Your task to perform on an android device: find which apps use the phone's location Image 0: 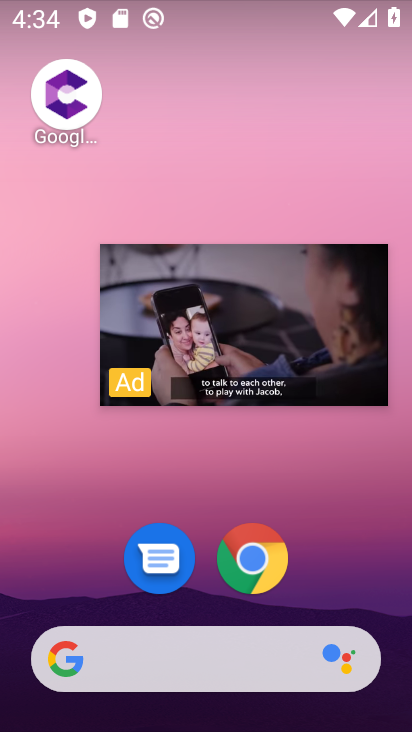
Step 0: click (354, 289)
Your task to perform on an android device: find which apps use the phone's location Image 1: 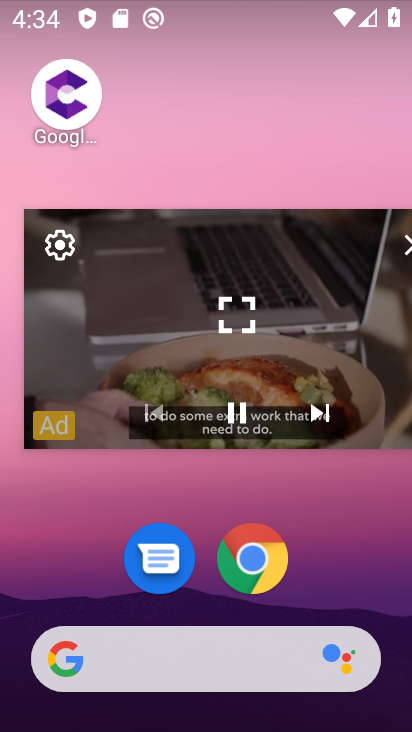
Step 1: click (409, 250)
Your task to perform on an android device: find which apps use the phone's location Image 2: 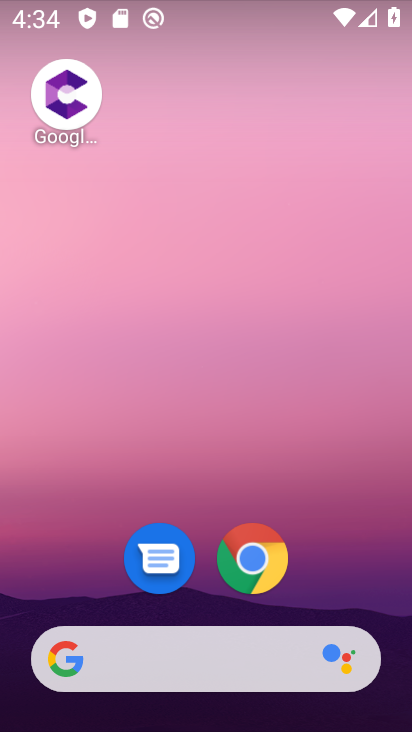
Step 2: drag from (359, 584) to (233, 40)
Your task to perform on an android device: find which apps use the phone's location Image 3: 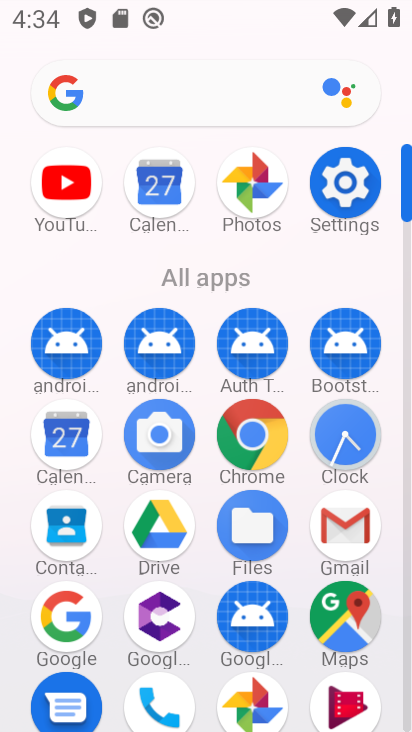
Step 3: click (337, 186)
Your task to perform on an android device: find which apps use the phone's location Image 4: 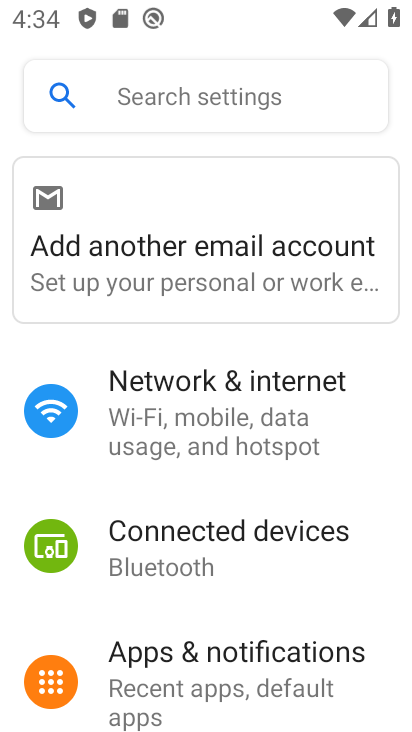
Step 4: drag from (323, 623) to (262, 147)
Your task to perform on an android device: find which apps use the phone's location Image 5: 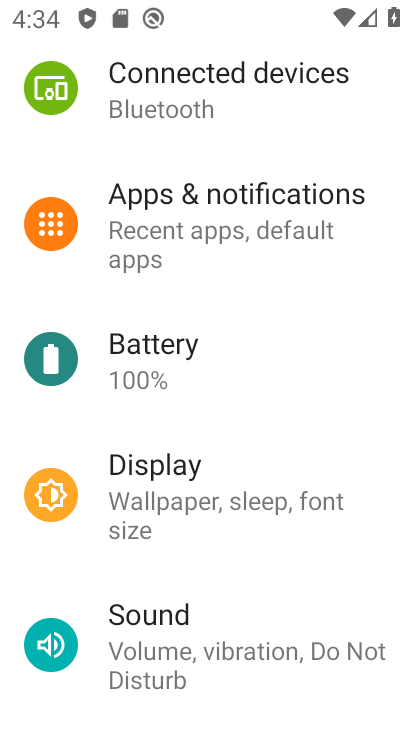
Step 5: drag from (273, 563) to (209, 95)
Your task to perform on an android device: find which apps use the phone's location Image 6: 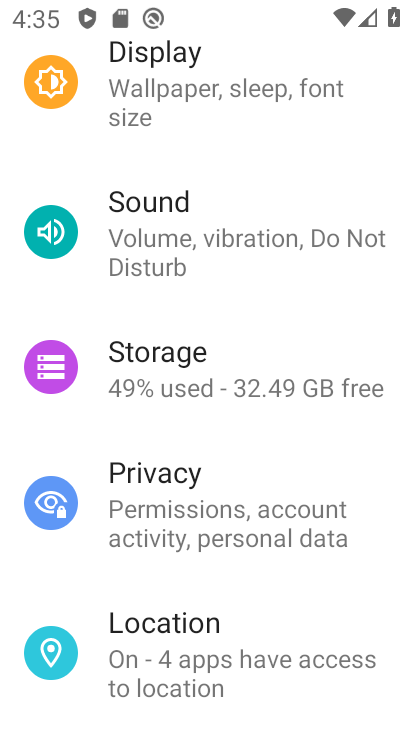
Step 6: click (209, 619)
Your task to perform on an android device: find which apps use the phone's location Image 7: 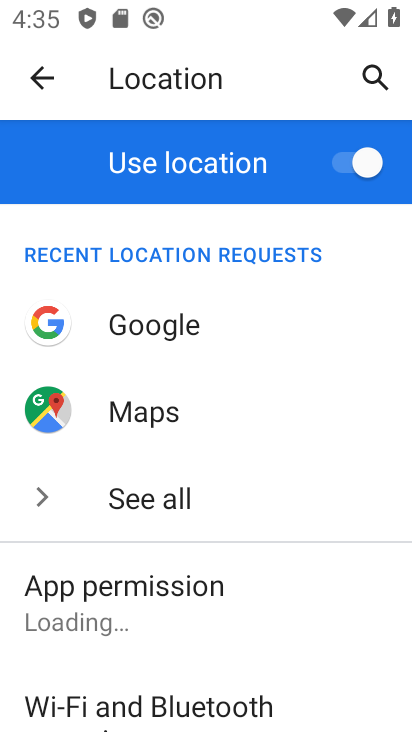
Step 7: drag from (299, 636) to (263, 253)
Your task to perform on an android device: find which apps use the phone's location Image 8: 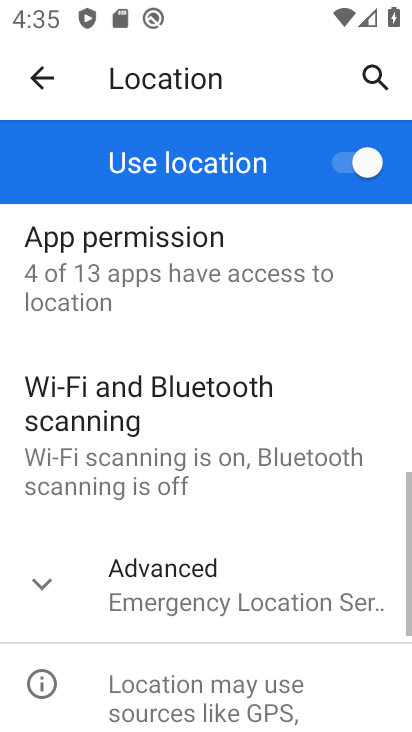
Step 8: click (229, 259)
Your task to perform on an android device: find which apps use the phone's location Image 9: 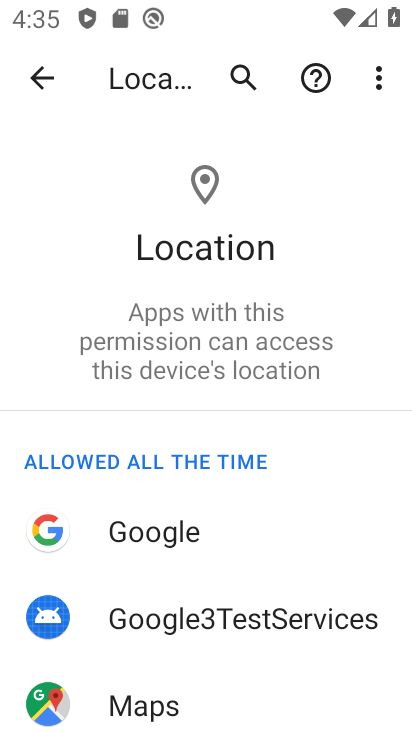
Step 9: task complete